Your task to perform on an android device: Open battery settings Image 0: 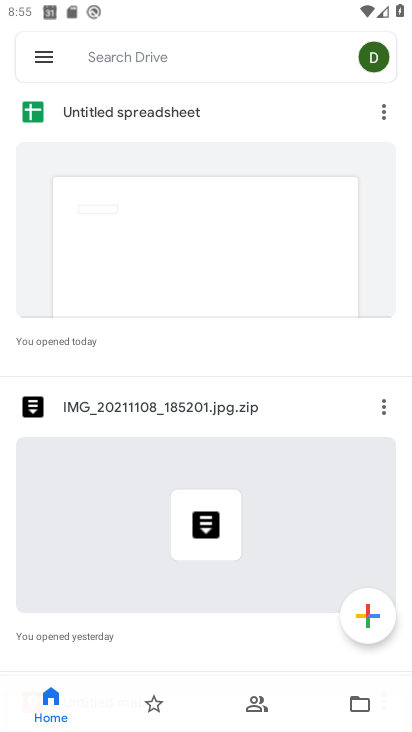
Step 0: drag from (218, 616) to (201, 149)
Your task to perform on an android device: Open battery settings Image 1: 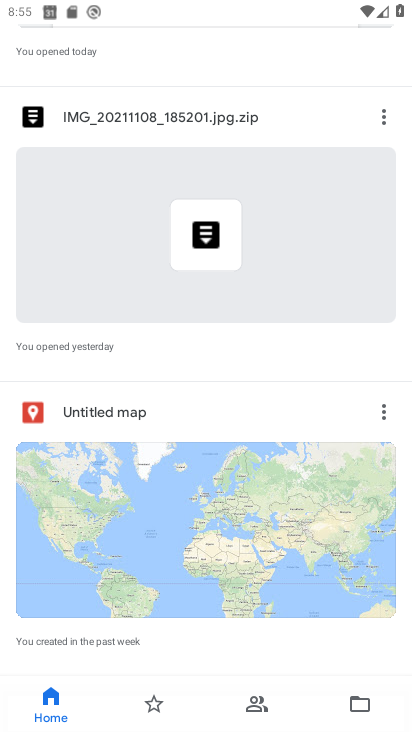
Step 1: press home button
Your task to perform on an android device: Open battery settings Image 2: 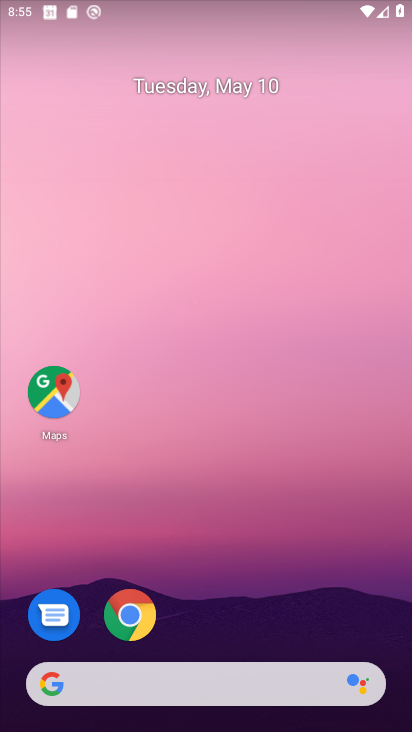
Step 2: drag from (185, 619) to (207, 186)
Your task to perform on an android device: Open battery settings Image 3: 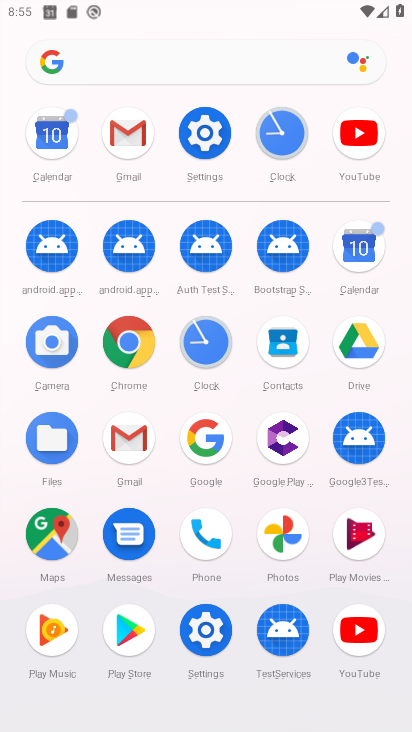
Step 3: click (212, 149)
Your task to perform on an android device: Open battery settings Image 4: 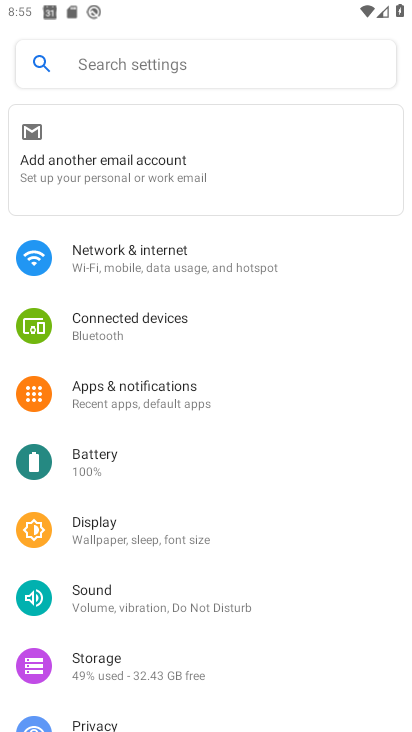
Step 4: click (138, 459)
Your task to perform on an android device: Open battery settings Image 5: 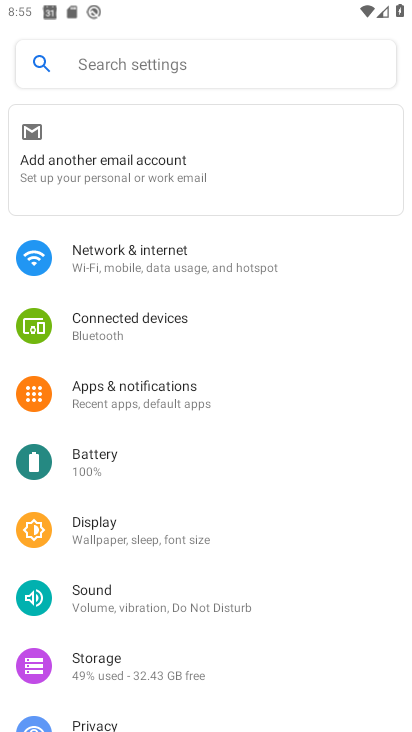
Step 5: click (138, 459)
Your task to perform on an android device: Open battery settings Image 6: 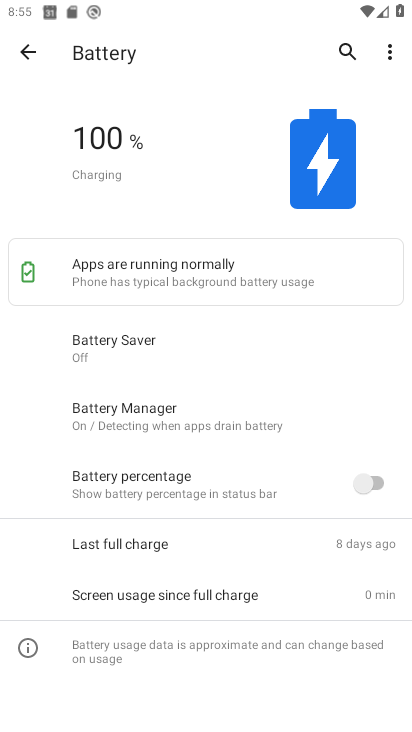
Step 6: task complete